Your task to perform on an android device: Go to sound settings Image 0: 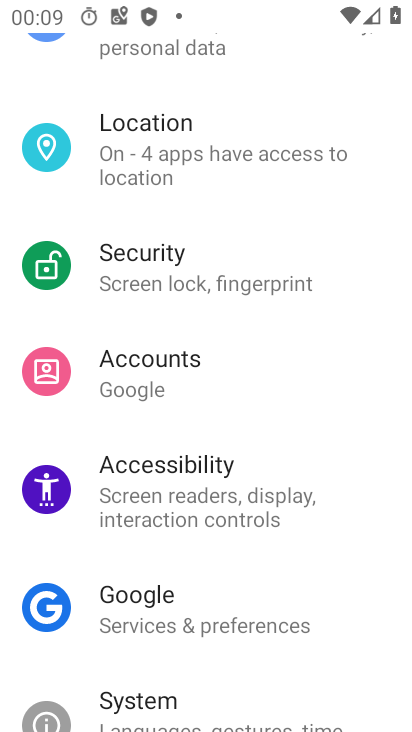
Step 0: drag from (305, 127) to (235, 571)
Your task to perform on an android device: Go to sound settings Image 1: 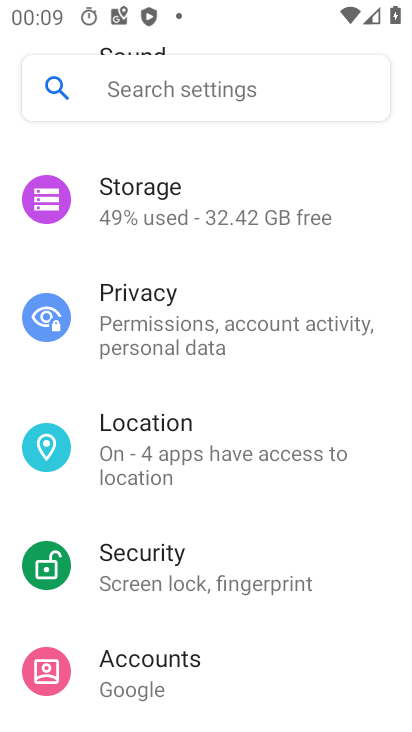
Step 1: drag from (334, 178) to (293, 579)
Your task to perform on an android device: Go to sound settings Image 2: 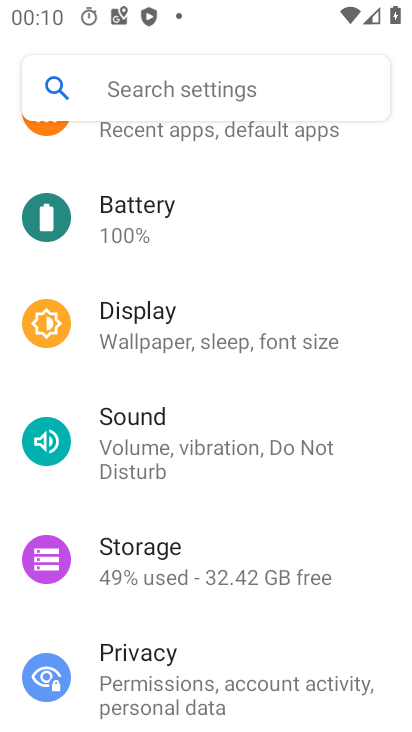
Step 2: drag from (302, 247) to (249, 476)
Your task to perform on an android device: Go to sound settings Image 3: 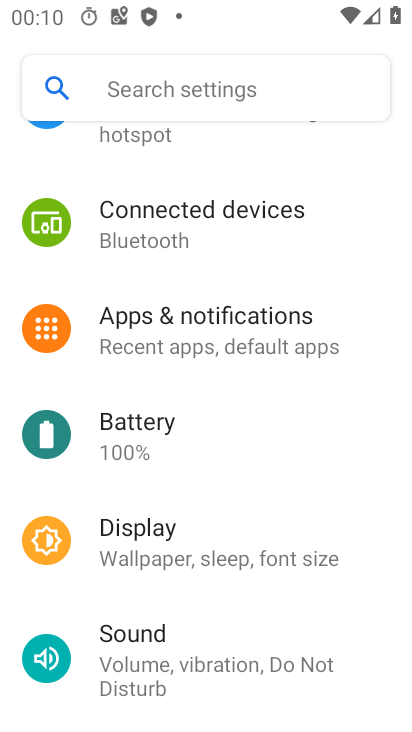
Step 3: click (139, 649)
Your task to perform on an android device: Go to sound settings Image 4: 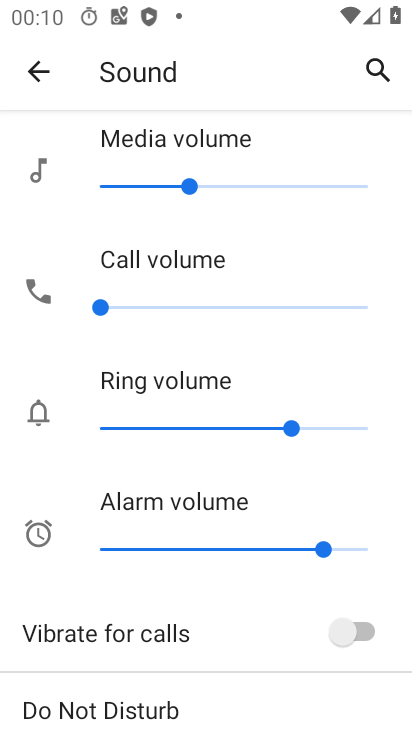
Step 4: task complete